Your task to perform on an android device: stop showing notifications on the lock screen Image 0: 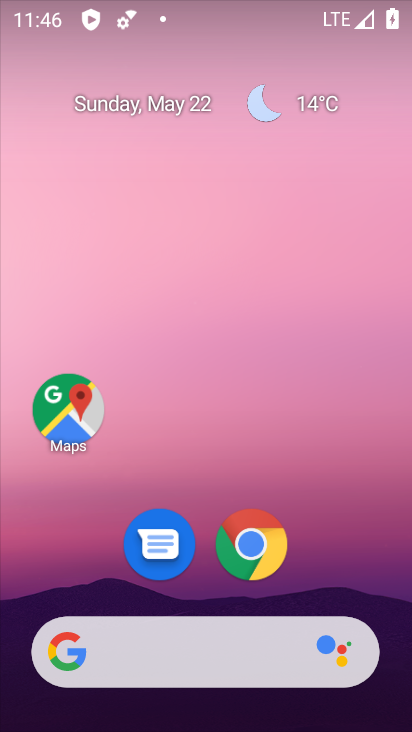
Step 0: drag from (203, 592) to (218, 171)
Your task to perform on an android device: stop showing notifications on the lock screen Image 1: 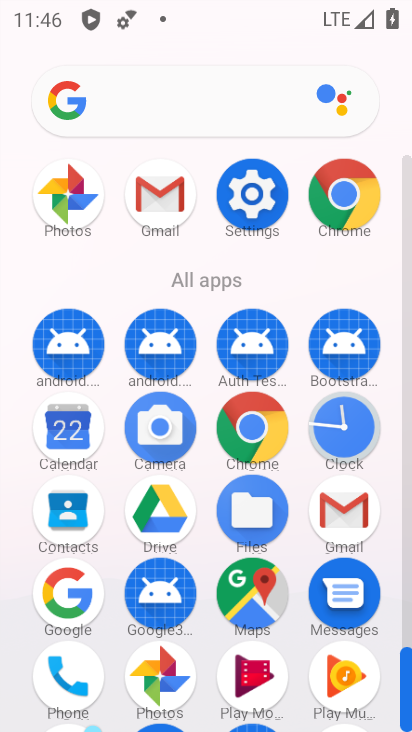
Step 1: click (248, 198)
Your task to perform on an android device: stop showing notifications on the lock screen Image 2: 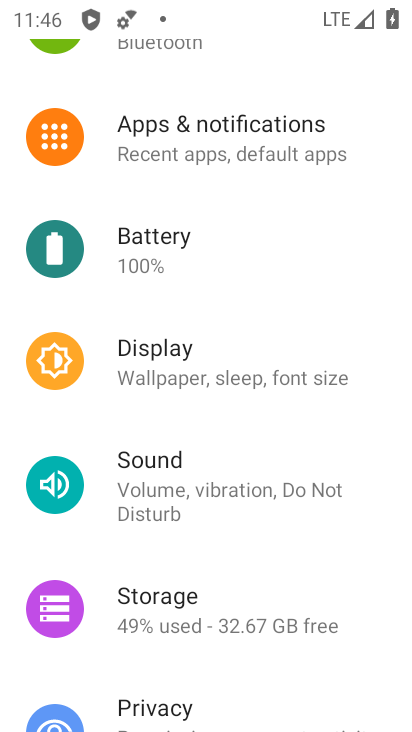
Step 2: drag from (239, 287) to (221, 507)
Your task to perform on an android device: stop showing notifications on the lock screen Image 3: 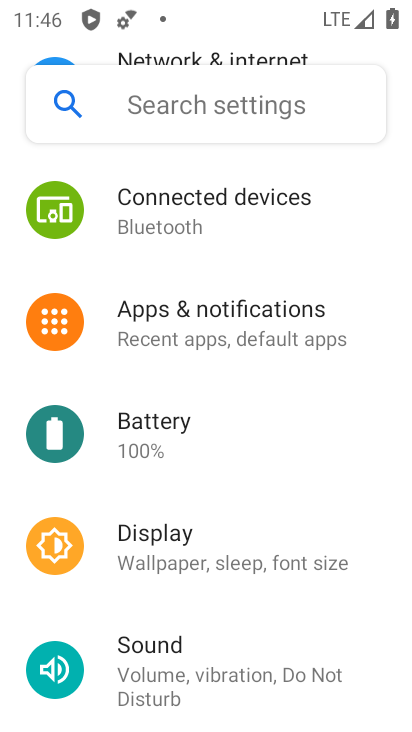
Step 3: click (176, 353)
Your task to perform on an android device: stop showing notifications on the lock screen Image 4: 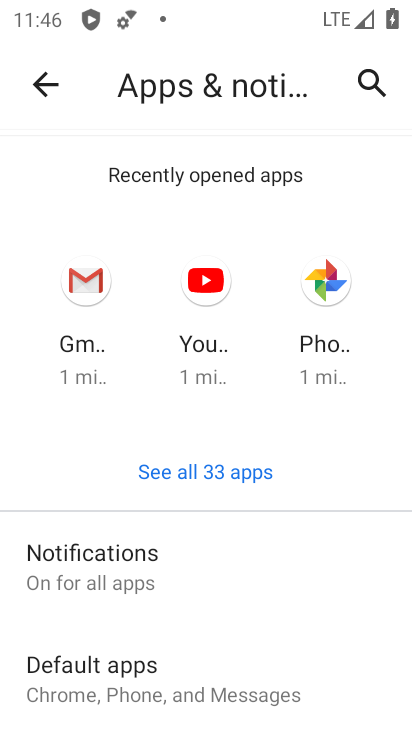
Step 4: click (136, 560)
Your task to perform on an android device: stop showing notifications on the lock screen Image 5: 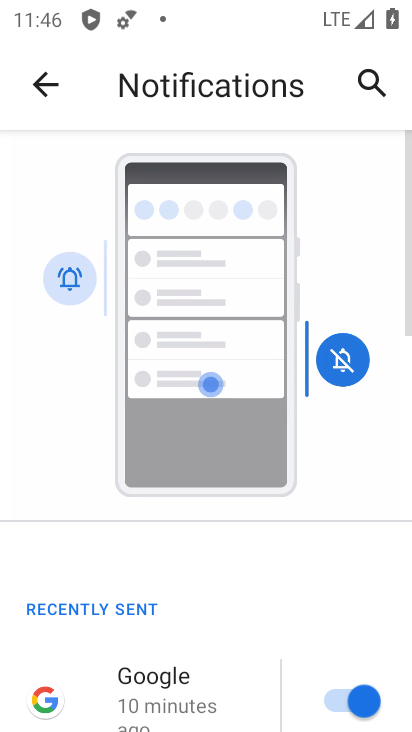
Step 5: drag from (209, 681) to (193, 358)
Your task to perform on an android device: stop showing notifications on the lock screen Image 6: 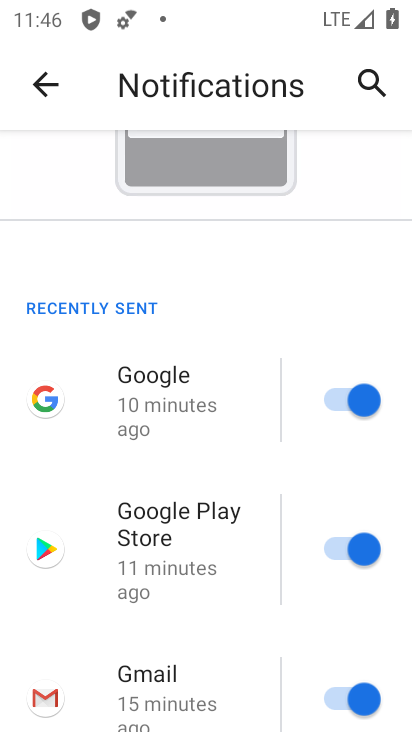
Step 6: drag from (186, 646) to (183, 379)
Your task to perform on an android device: stop showing notifications on the lock screen Image 7: 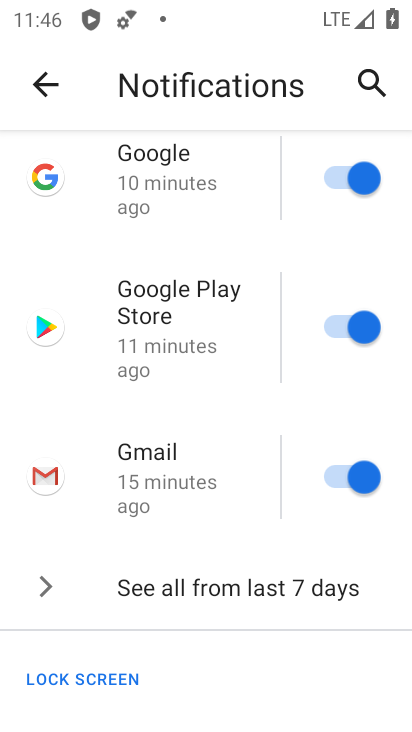
Step 7: drag from (175, 655) to (197, 413)
Your task to perform on an android device: stop showing notifications on the lock screen Image 8: 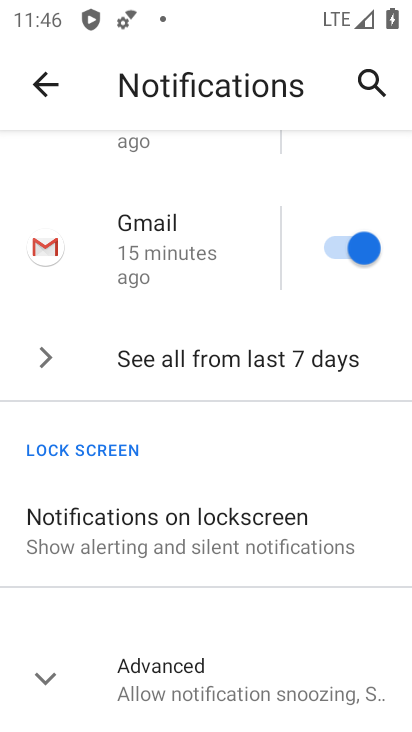
Step 8: drag from (235, 627) to (224, 399)
Your task to perform on an android device: stop showing notifications on the lock screen Image 9: 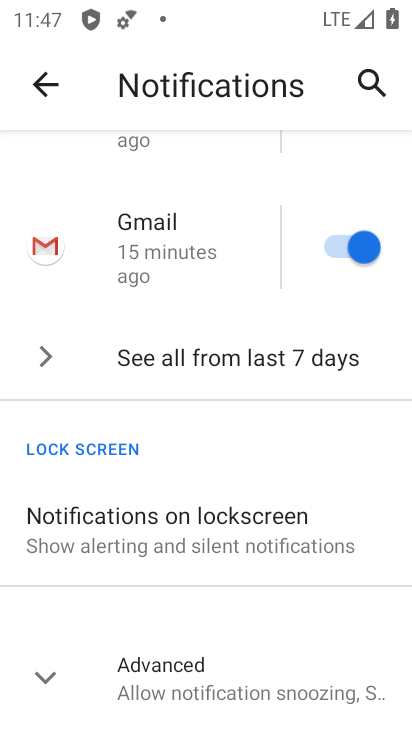
Step 9: click (144, 545)
Your task to perform on an android device: stop showing notifications on the lock screen Image 10: 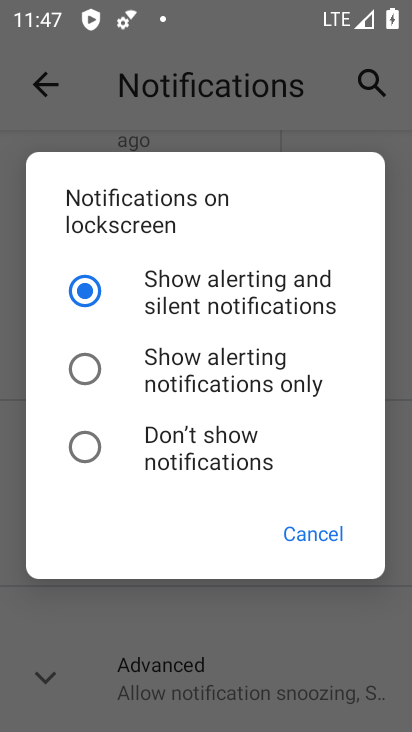
Step 10: click (85, 458)
Your task to perform on an android device: stop showing notifications on the lock screen Image 11: 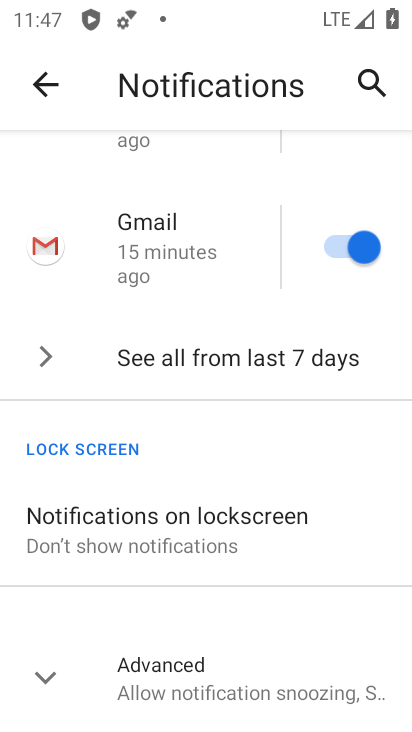
Step 11: task complete